Your task to perform on an android device: Go to notification settings Image 0: 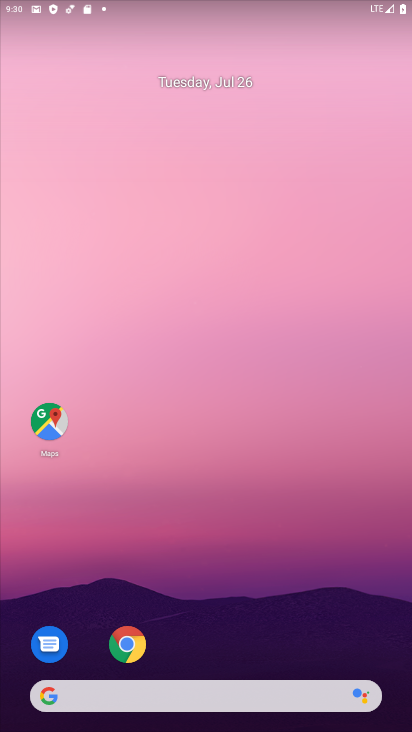
Step 0: drag from (271, 611) to (246, 13)
Your task to perform on an android device: Go to notification settings Image 1: 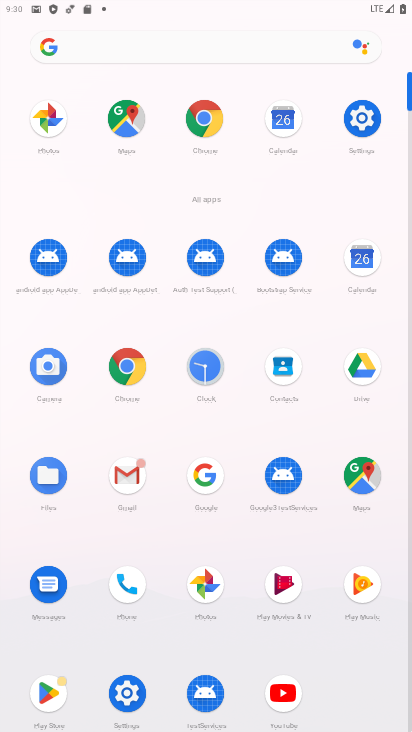
Step 1: click (366, 126)
Your task to perform on an android device: Go to notification settings Image 2: 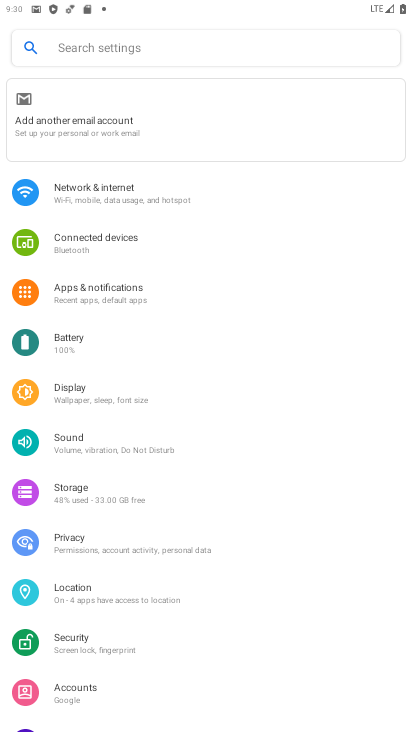
Step 2: click (93, 294)
Your task to perform on an android device: Go to notification settings Image 3: 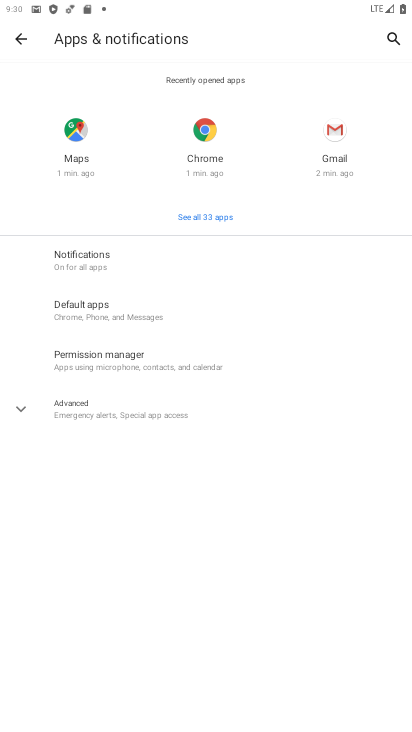
Step 3: click (85, 258)
Your task to perform on an android device: Go to notification settings Image 4: 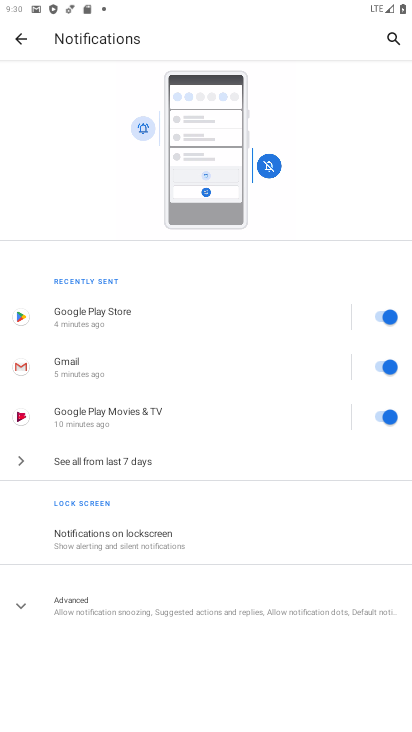
Step 4: task complete